Your task to perform on an android device: empty trash in the gmail app Image 0: 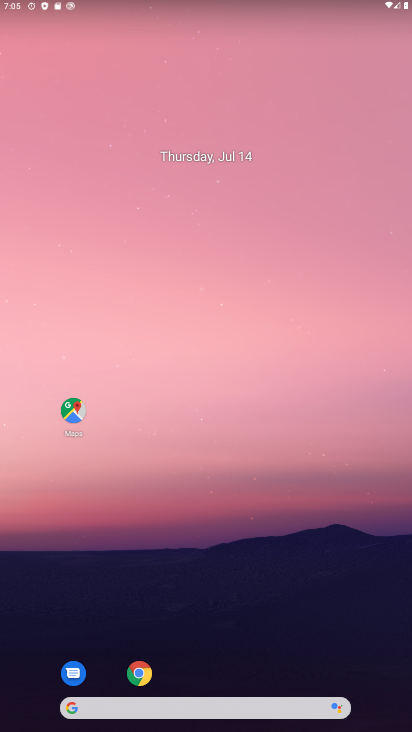
Step 0: drag from (236, 407) to (288, 157)
Your task to perform on an android device: empty trash in the gmail app Image 1: 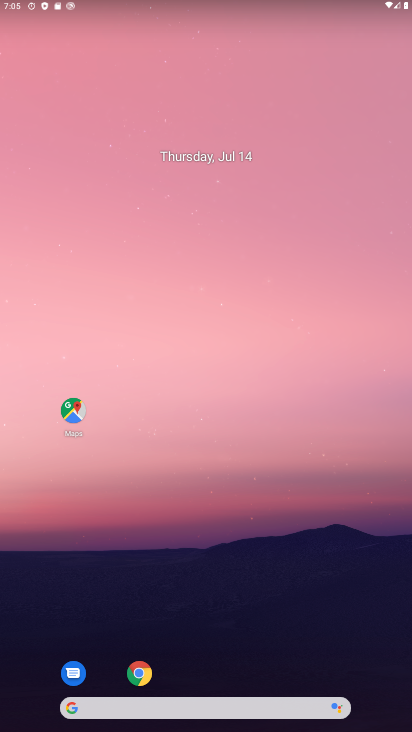
Step 1: drag from (218, 628) to (312, 67)
Your task to perform on an android device: empty trash in the gmail app Image 2: 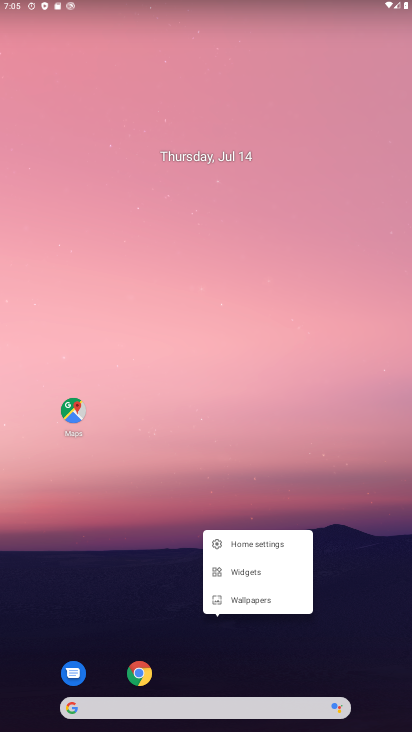
Step 2: click (251, 461)
Your task to perform on an android device: empty trash in the gmail app Image 3: 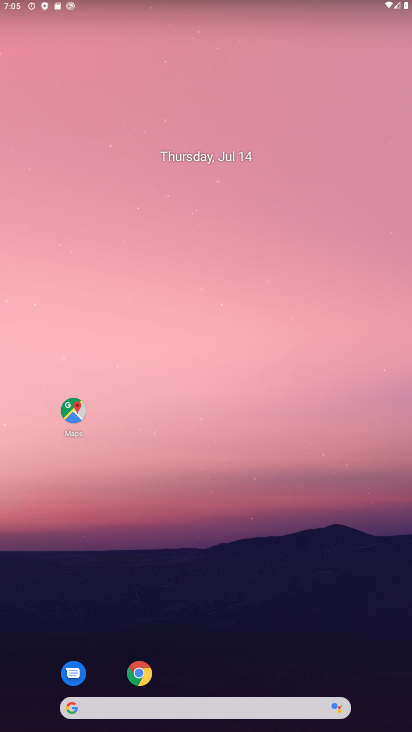
Step 3: drag from (193, 509) to (236, 122)
Your task to perform on an android device: empty trash in the gmail app Image 4: 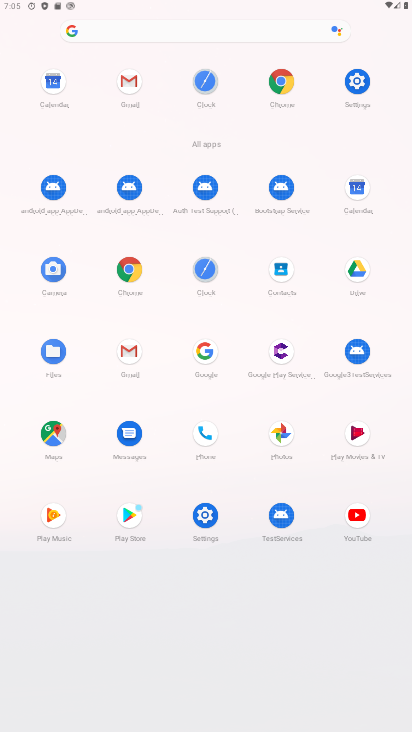
Step 4: click (126, 342)
Your task to perform on an android device: empty trash in the gmail app Image 5: 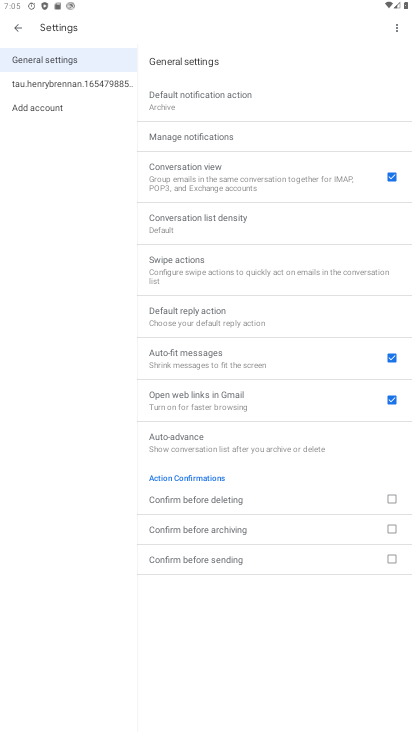
Step 5: click (21, 31)
Your task to perform on an android device: empty trash in the gmail app Image 6: 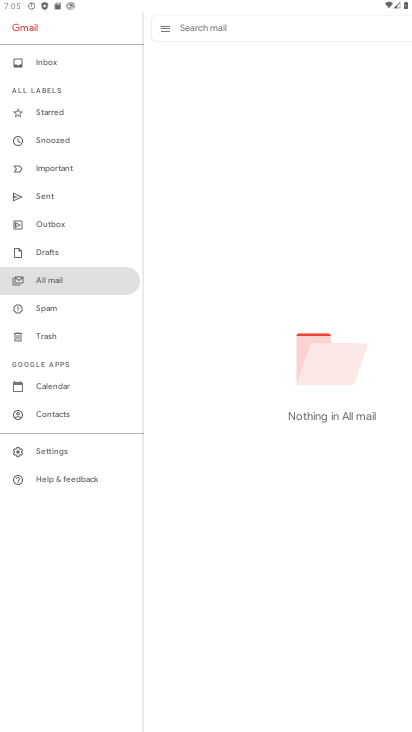
Step 6: click (43, 332)
Your task to perform on an android device: empty trash in the gmail app Image 7: 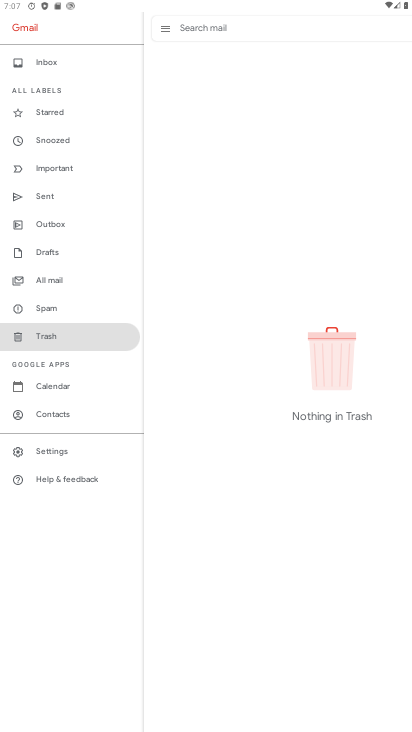
Step 7: task complete